Your task to perform on an android device: Open my contact list Image 0: 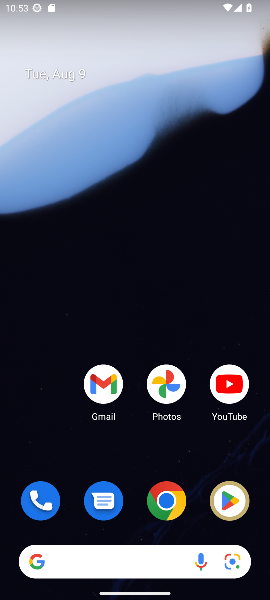
Step 0: drag from (139, 448) to (175, 243)
Your task to perform on an android device: Open my contact list Image 1: 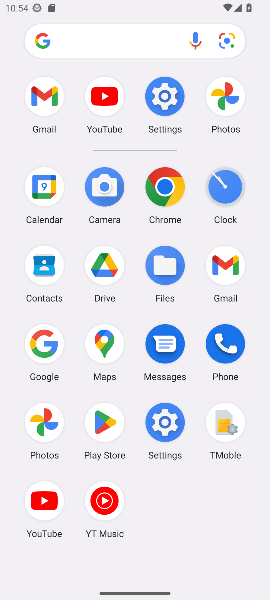
Step 1: click (40, 258)
Your task to perform on an android device: Open my contact list Image 2: 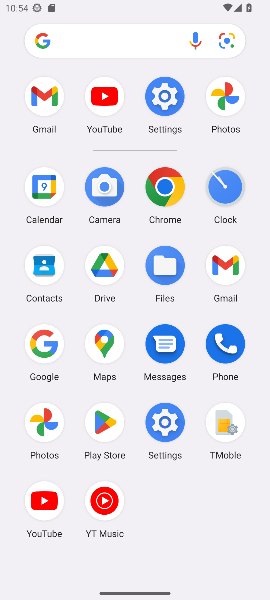
Step 2: click (44, 266)
Your task to perform on an android device: Open my contact list Image 3: 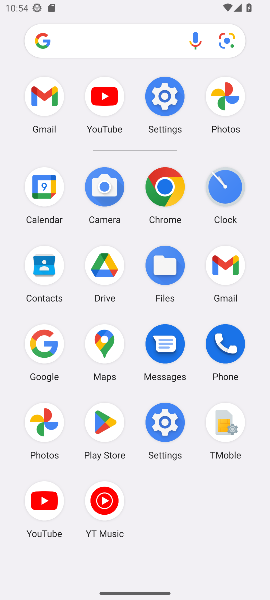
Step 3: click (44, 266)
Your task to perform on an android device: Open my contact list Image 4: 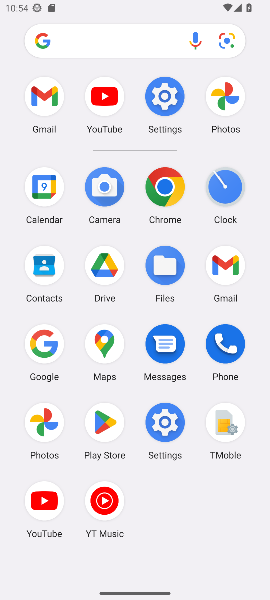
Step 4: click (47, 289)
Your task to perform on an android device: Open my contact list Image 5: 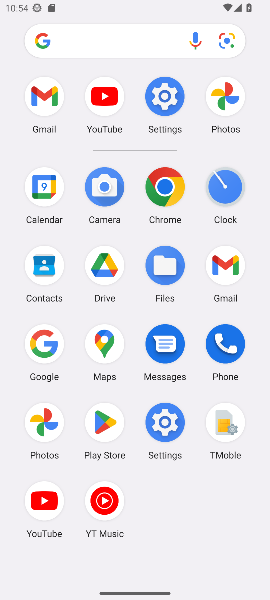
Step 5: task complete